Your task to perform on an android device: Go to notification settings Image 0: 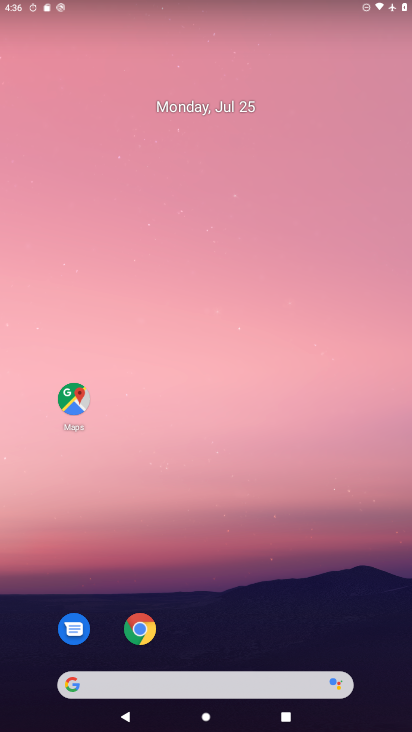
Step 0: drag from (241, 681) to (94, 13)
Your task to perform on an android device: Go to notification settings Image 1: 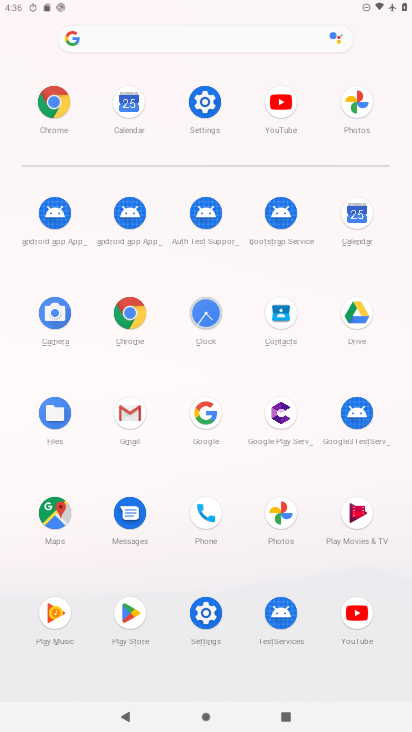
Step 1: click (208, 102)
Your task to perform on an android device: Go to notification settings Image 2: 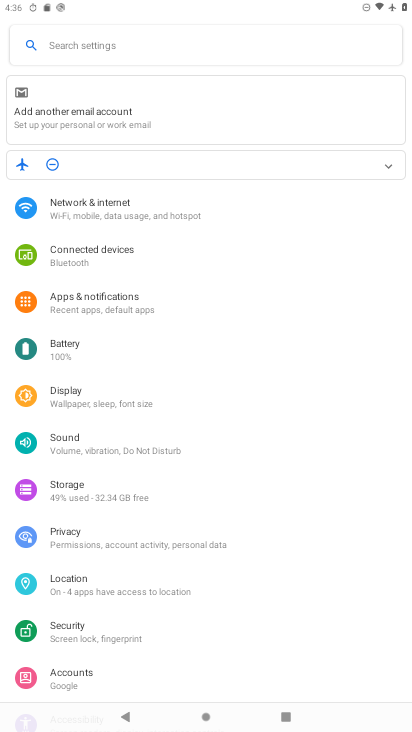
Step 2: click (131, 313)
Your task to perform on an android device: Go to notification settings Image 3: 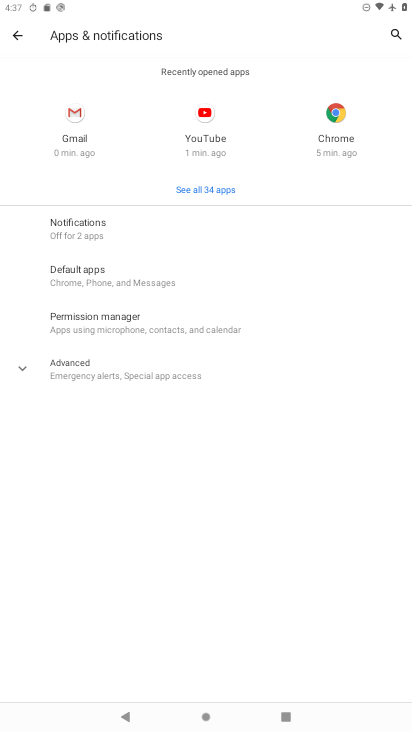
Step 3: click (103, 224)
Your task to perform on an android device: Go to notification settings Image 4: 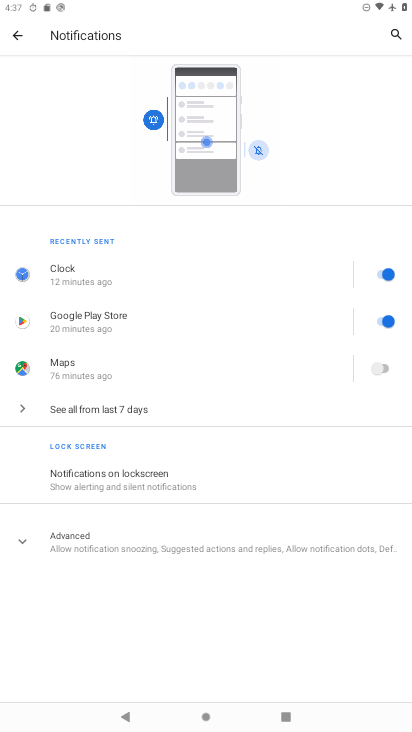
Step 4: click (382, 271)
Your task to perform on an android device: Go to notification settings Image 5: 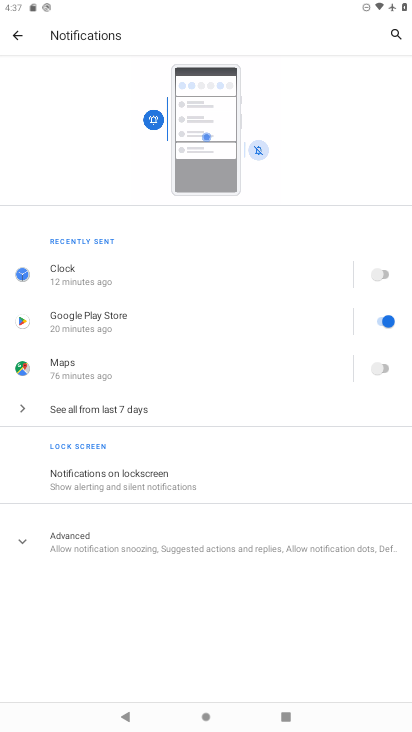
Step 5: task complete